Your task to perform on an android device: turn vacation reply on in the gmail app Image 0: 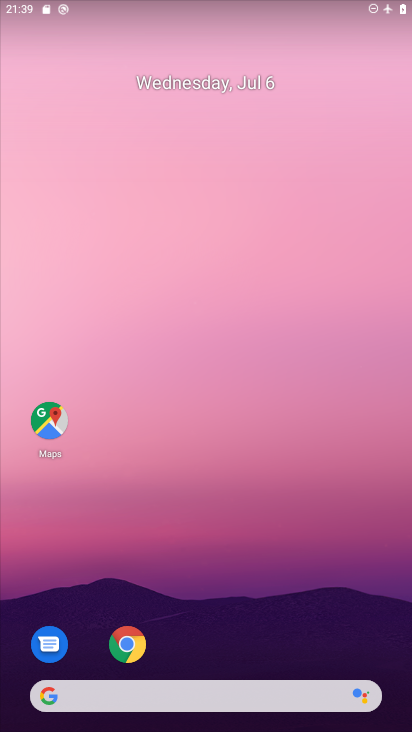
Step 0: drag from (197, 656) to (163, 195)
Your task to perform on an android device: turn vacation reply on in the gmail app Image 1: 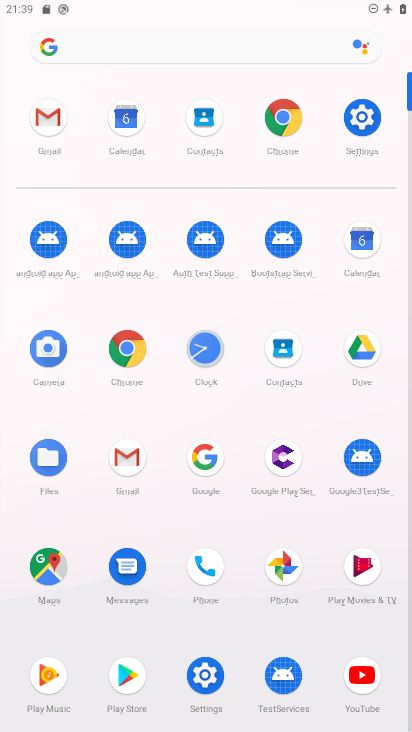
Step 1: click (50, 123)
Your task to perform on an android device: turn vacation reply on in the gmail app Image 2: 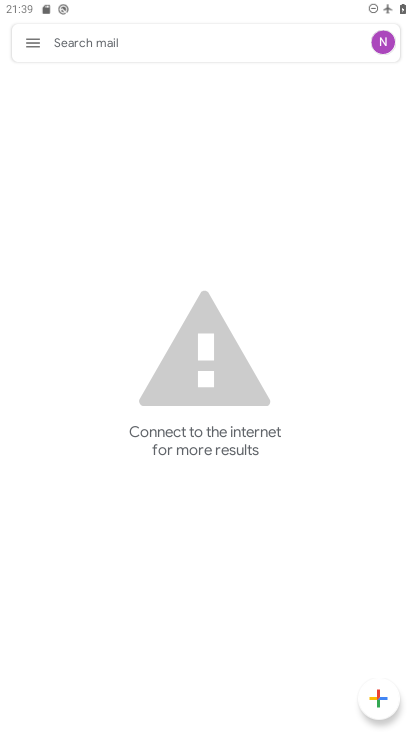
Step 2: click (42, 48)
Your task to perform on an android device: turn vacation reply on in the gmail app Image 3: 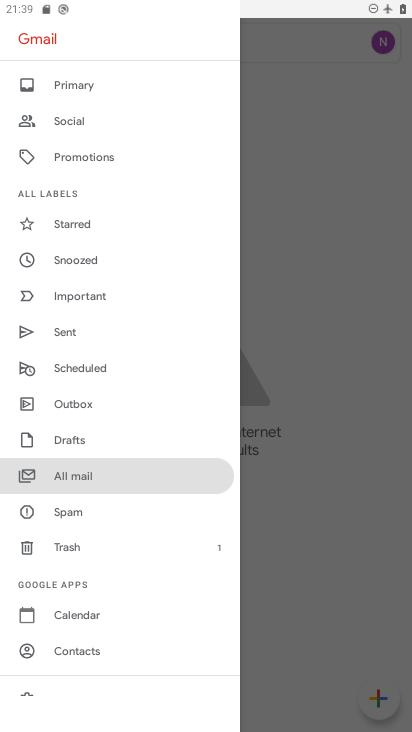
Step 3: drag from (91, 646) to (126, 382)
Your task to perform on an android device: turn vacation reply on in the gmail app Image 4: 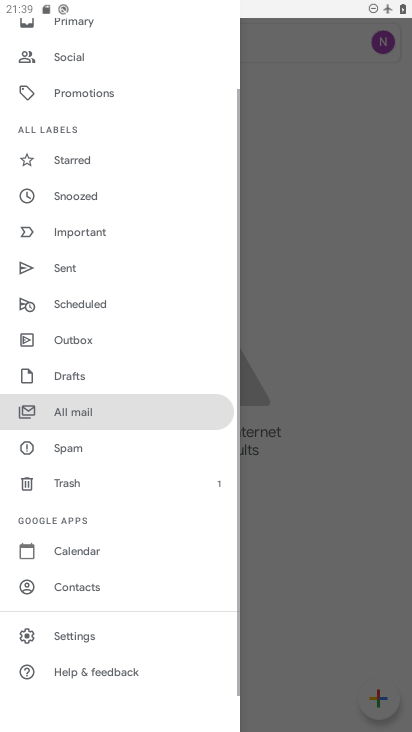
Step 4: click (78, 627)
Your task to perform on an android device: turn vacation reply on in the gmail app Image 5: 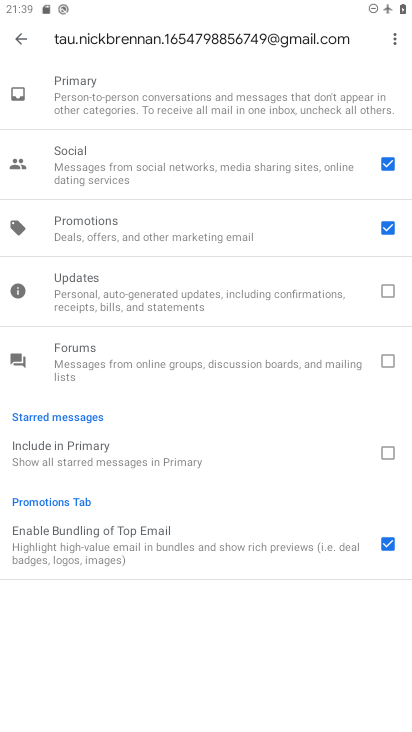
Step 5: click (14, 42)
Your task to perform on an android device: turn vacation reply on in the gmail app Image 6: 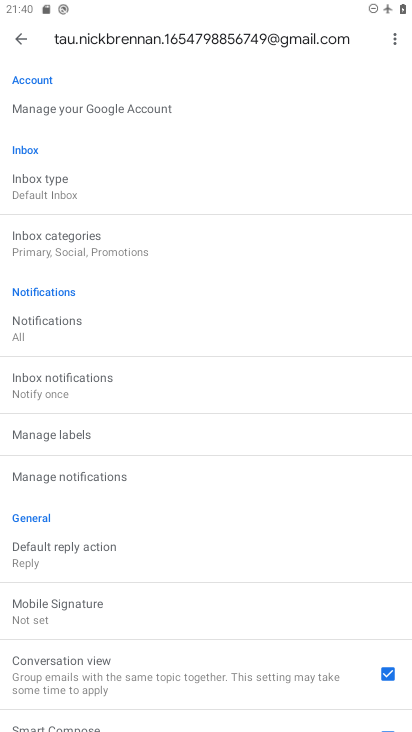
Step 6: drag from (184, 605) to (221, 389)
Your task to perform on an android device: turn vacation reply on in the gmail app Image 7: 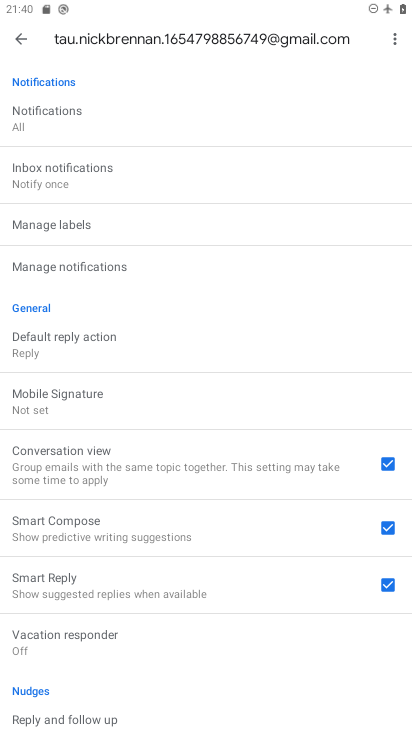
Step 7: click (176, 638)
Your task to perform on an android device: turn vacation reply on in the gmail app Image 8: 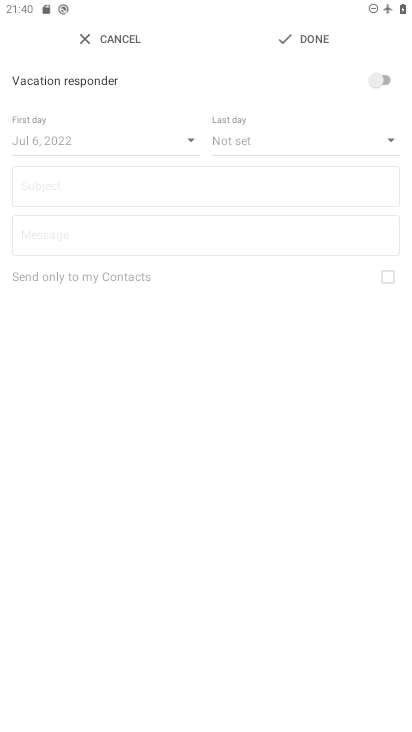
Step 8: click (381, 75)
Your task to perform on an android device: turn vacation reply on in the gmail app Image 9: 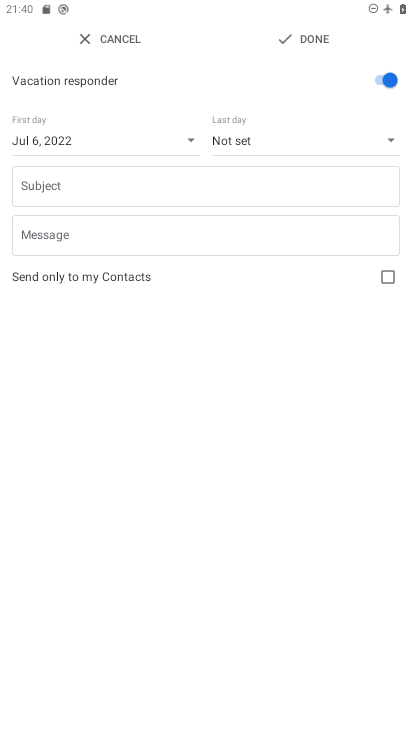
Step 9: task complete